Your task to perform on an android device: delete a single message in the gmail app Image 0: 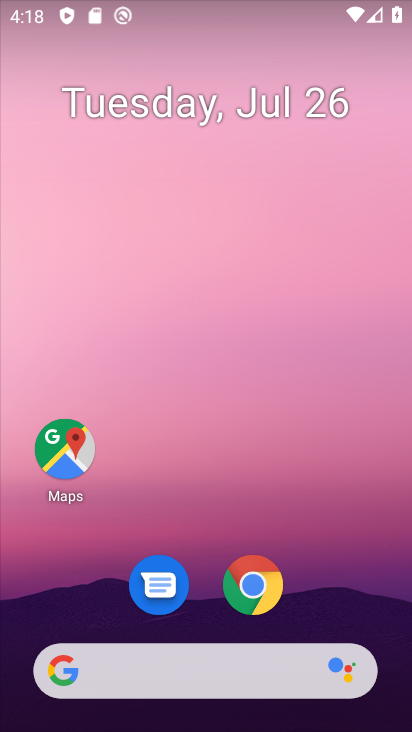
Step 0: drag from (321, 576) to (259, 31)
Your task to perform on an android device: delete a single message in the gmail app Image 1: 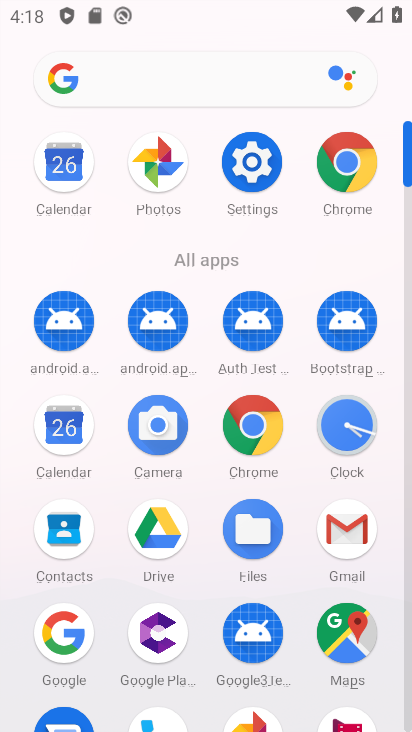
Step 1: click (350, 532)
Your task to perform on an android device: delete a single message in the gmail app Image 2: 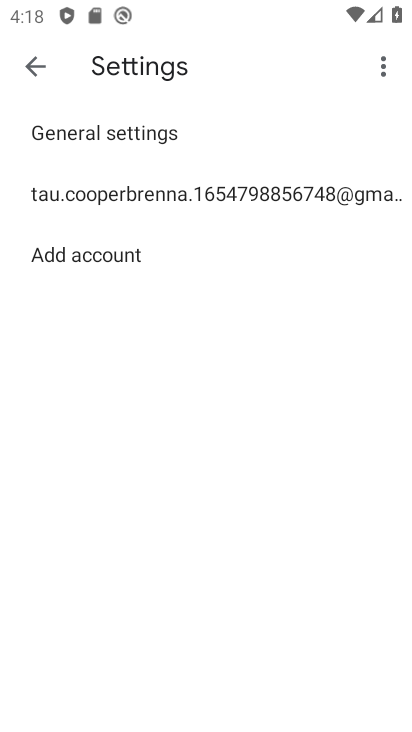
Step 2: click (36, 67)
Your task to perform on an android device: delete a single message in the gmail app Image 3: 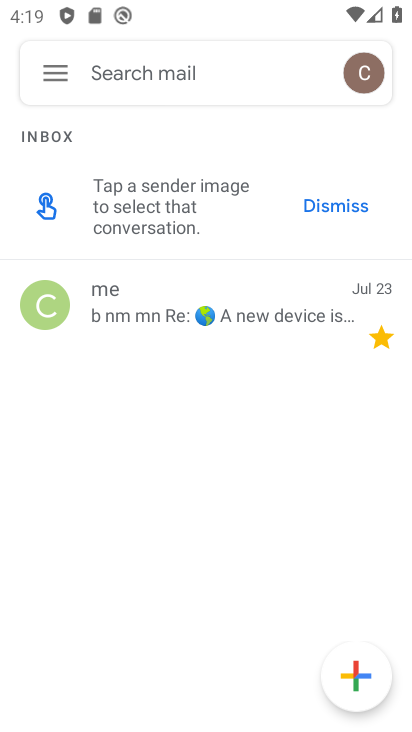
Step 3: click (219, 306)
Your task to perform on an android device: delete a single message in the gmail app Image 4: 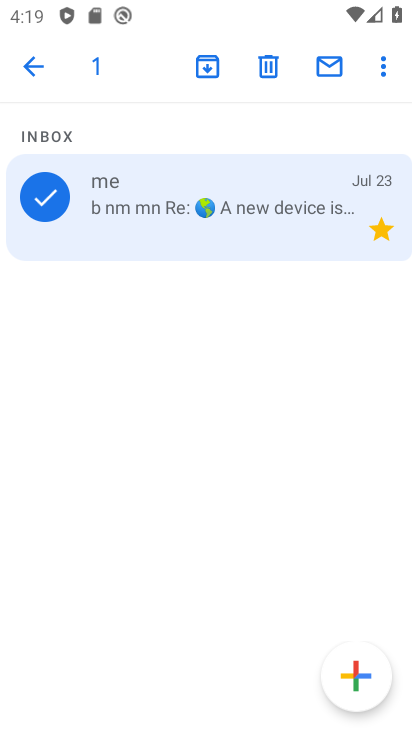
Step 4: click (268, 61)
Your task to perform on an android device: delete a single message in the gmail app Image 5: 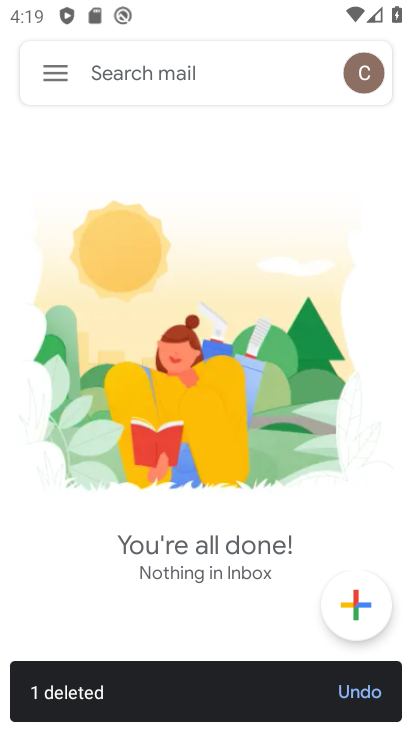
Step 5: task complete